Your task to perform on an android device: turn on priority inbox in the gmail app Image 0: 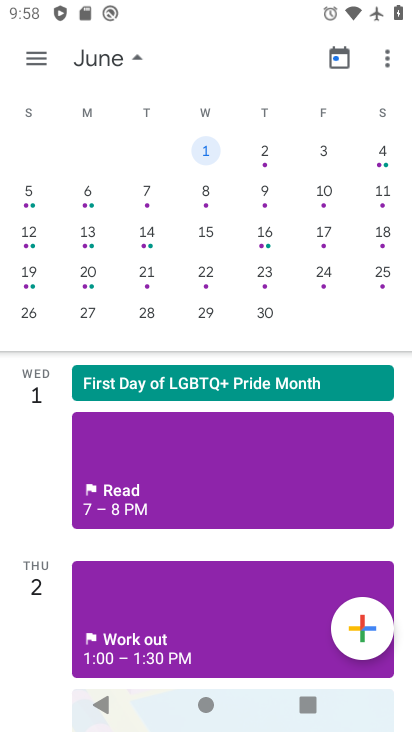
Step 0: press back button
Your task to perform on an android device: turn on priority inbox in the gmail app Image 1: 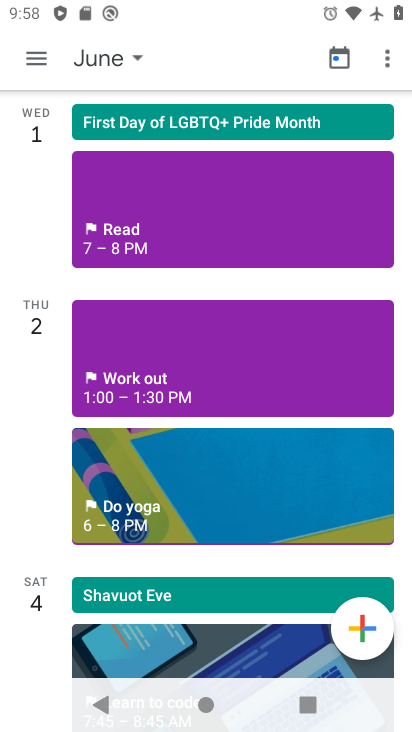
Step 1: press home button
Your task to perform on an android device: turn on priority inbox in the gmail app Image 2: 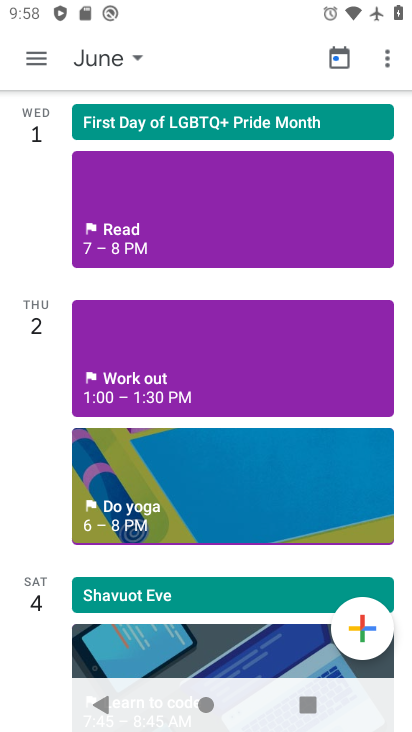
Step 2: press home button
Your task to perform on an android device: turn on priority inbox in the gmail app Image 3: 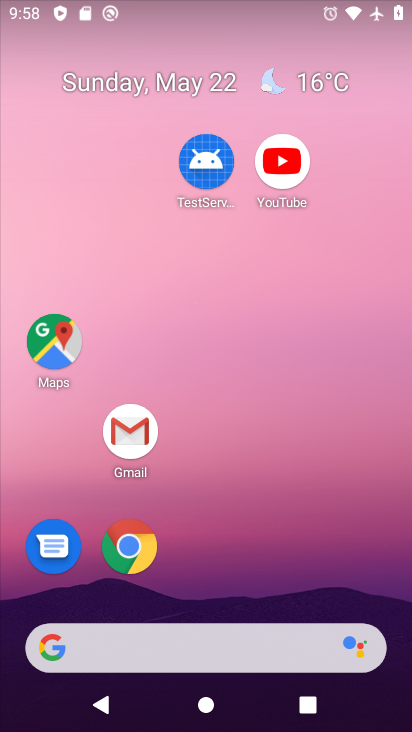
Step 3: drag from (267, 643) to (124, 48)
Your task to perform on an android device: turn on priority inbox in the gmail app Image 4: 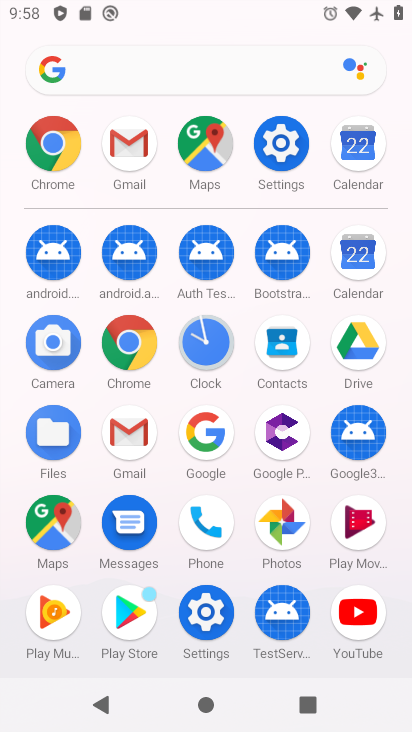
Step 4: click (117, 425)
Your task to perform on an android device: turn on priority inbox in the gmail app Image 5: 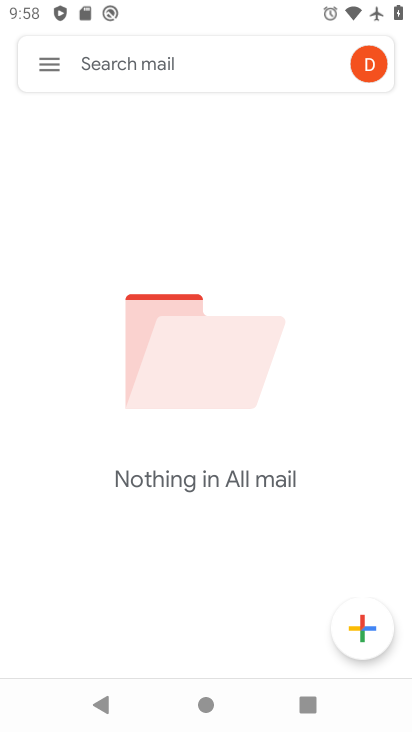
Step 5: click (41, 61)
Your task to perform on an android device: turn on priority inbox in the gmail app Image 6: 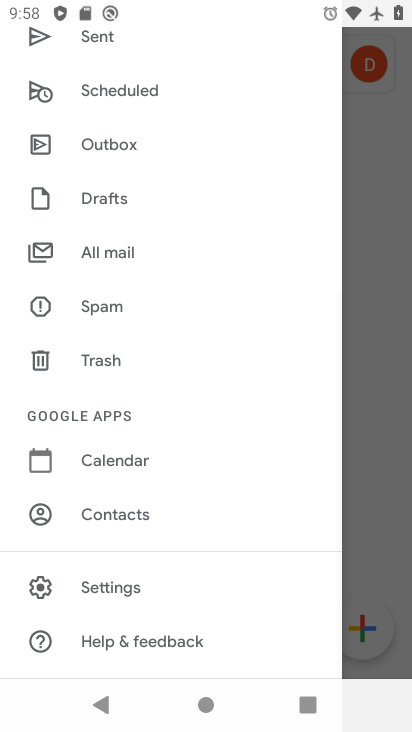
Step 6: click (111, 584)
Your task to perform on an android device: turn on priority inbox in the gmail app Image 7: 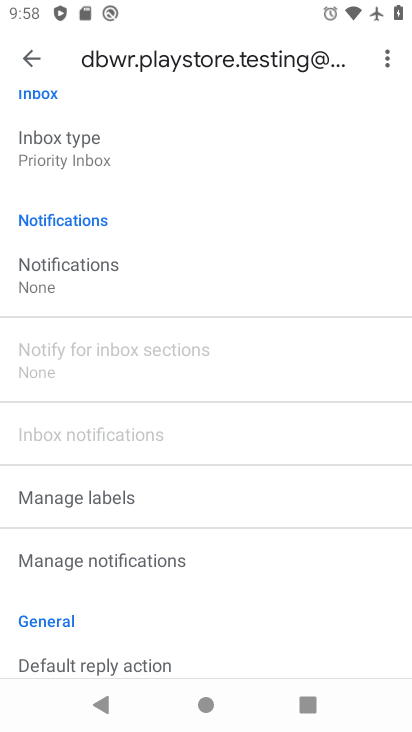
Step 7: click (32, 137)
Your task to perform on an android device: turn on priority inbox in the gmail app Image 8: 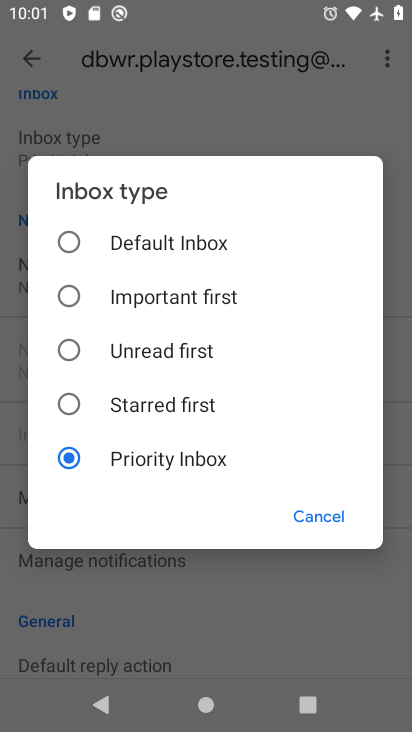
Step 8: task complete